Your task to perform on an android device: clear history in the chrome app Image 0: 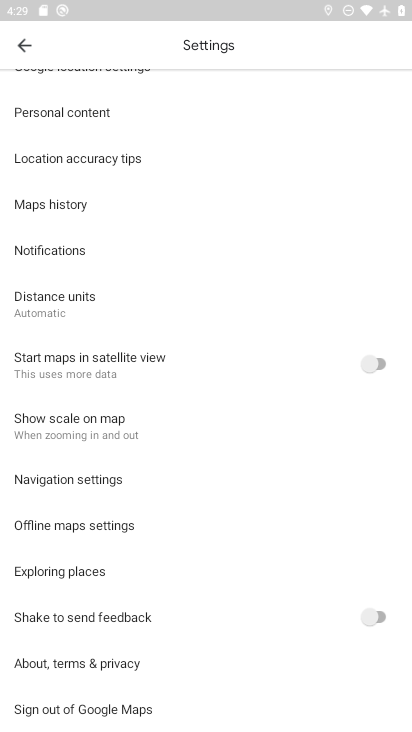
Step 0: press home button
Your task to perform on an android device: clear history in the chrome app Image 1: 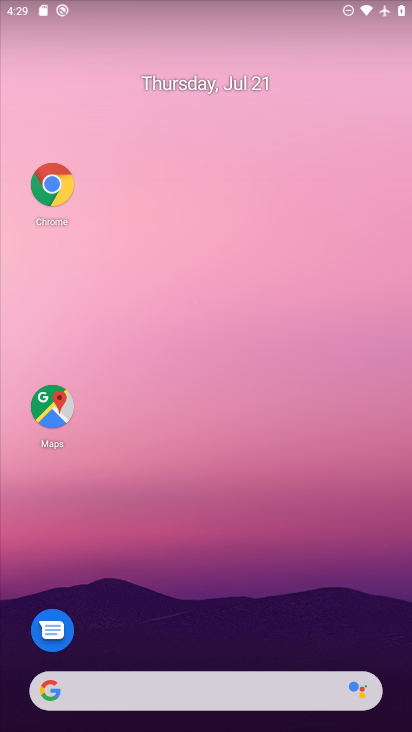
Step 1: drag from (178, 665) to (229, 8)
Your task to perform on an android device: clear history in the chrome app Image 2: 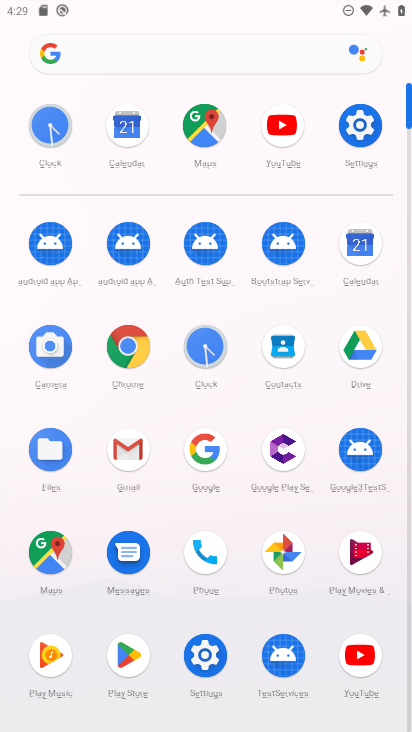
Step 2: click (122, 360)
Your task to perform on an android device: clear history in the chrome app Image 3: 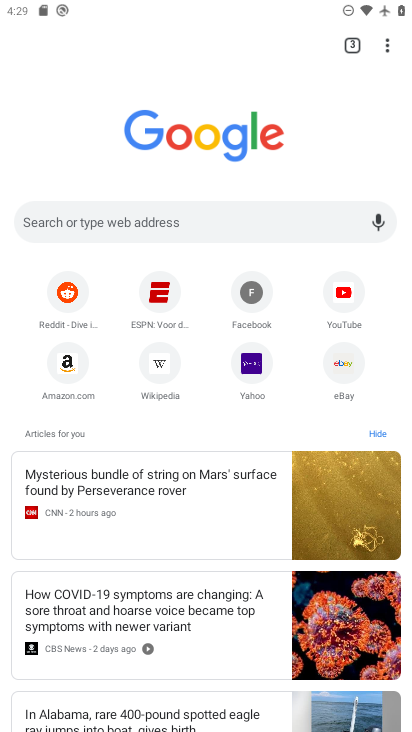
Step 3: click (388, 45)
Your task to perform on an android device: clear history in the chrome app Image 4: 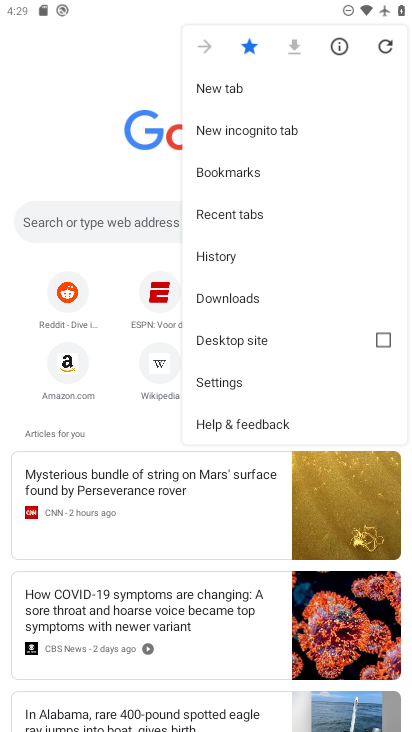
Step 4: click (235, 249)
Your task to perform on an android device: clear history in the chrome app Image 5: 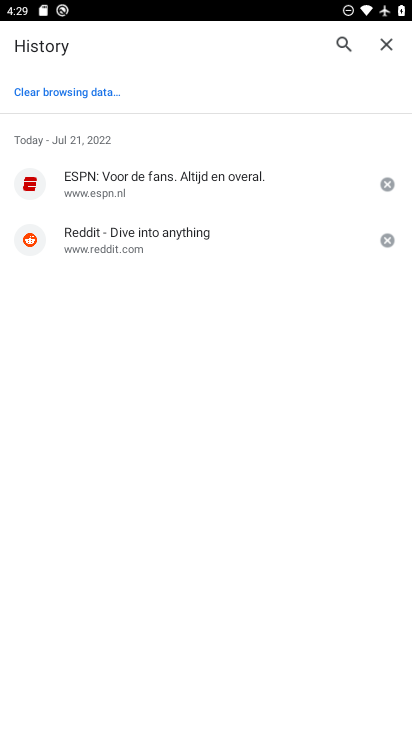
Step 5: click (74, 91)
Your task to perform on an android device: clear history in the chrome app Image 6: 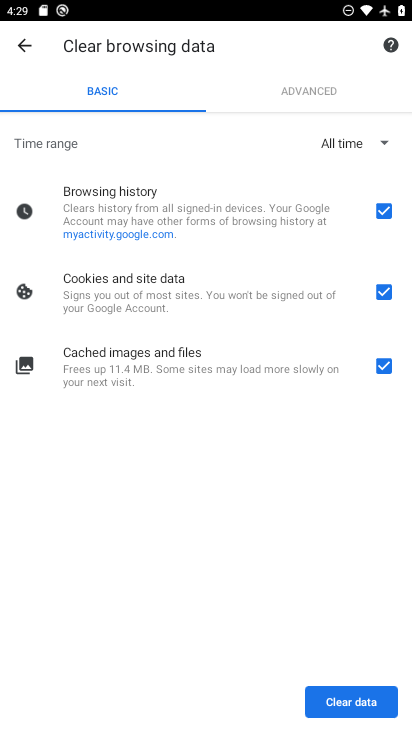
Step 6: click (344, 697)
Your task to perform on an android device: clear history in the chrome app Image 7: 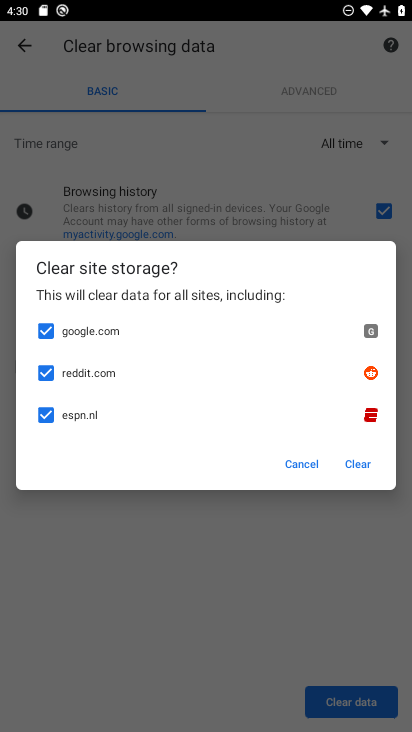
Step 7: click (353, 458)
Your task to perform on an android device: clear history in the chrome app Image 8: 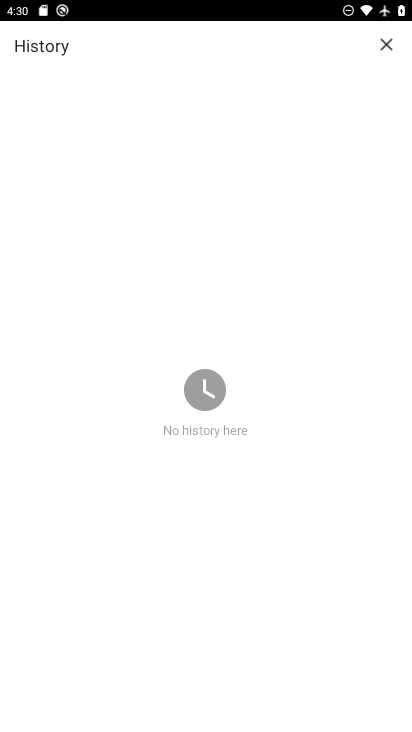
Step 8: task complete